Your task to perform on an android device: add a contact in the contacts app Image 0: 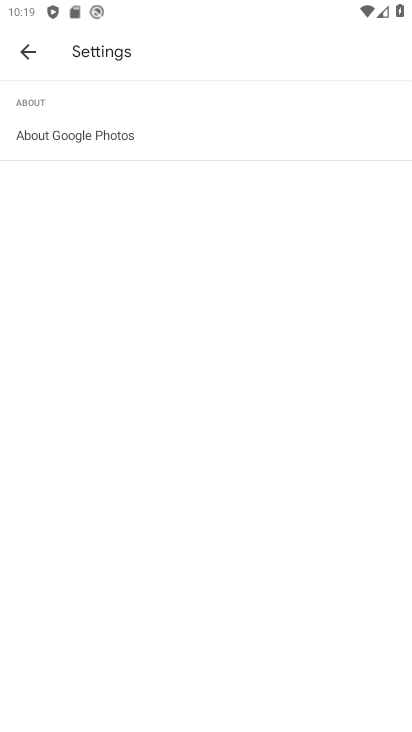
Step 0: press home button
Your task to perform on an android device: add a contact in the contacts app Image 1: 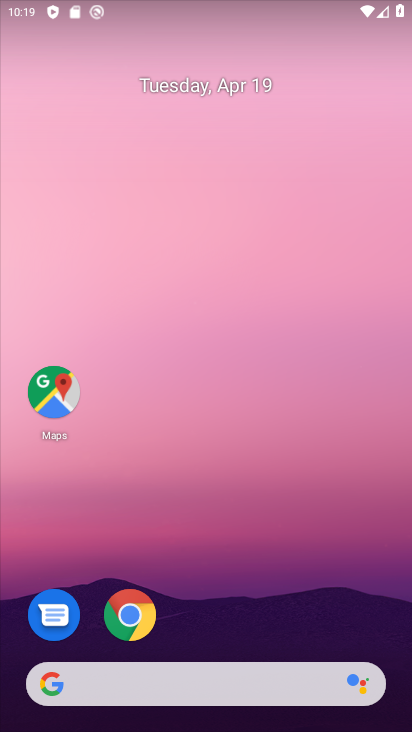
Step 1: drag from (254, 576) to (236, 35)
Your task to perform on an android device: add a contact in the contacts app Image 2: 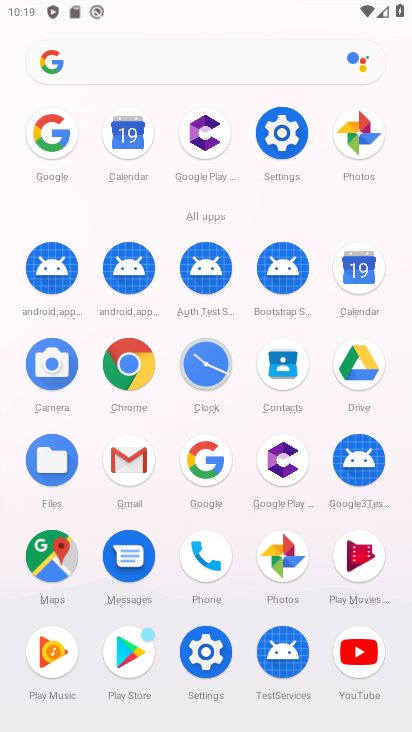
Step 2: click (284, 364)
Your task to perform on an android device: add a contact in the contacts app Image 3: 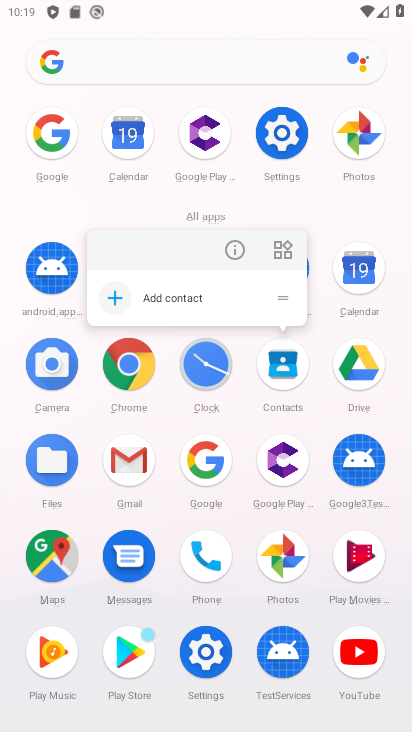
Step 3: click (282, 367)
Your task to perform on an android device: add a contact in the contacts app Image 4: 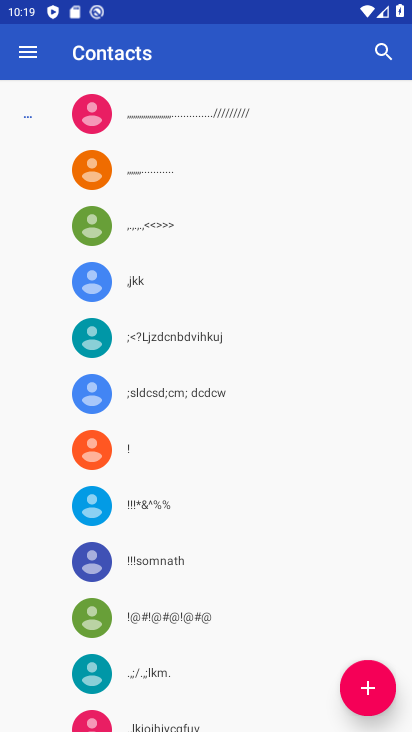
Step 4: click (371, 686)
Your task to perform on an android device: add a contact in the contacts app Image 5: 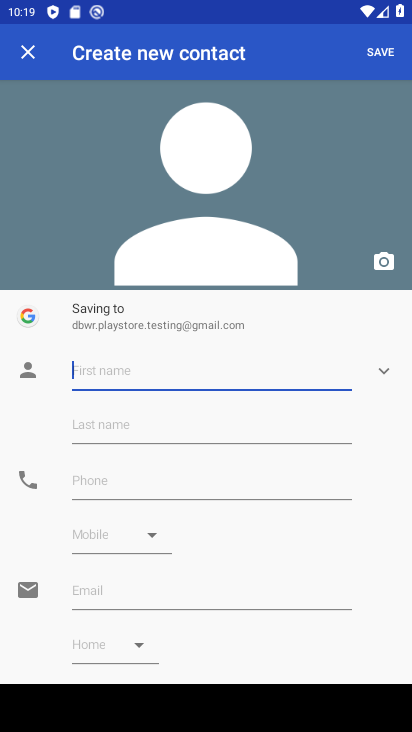
Step 5: click (169, 374)
Your task to perform on an android device: add a contact in the contacts app Image 6: 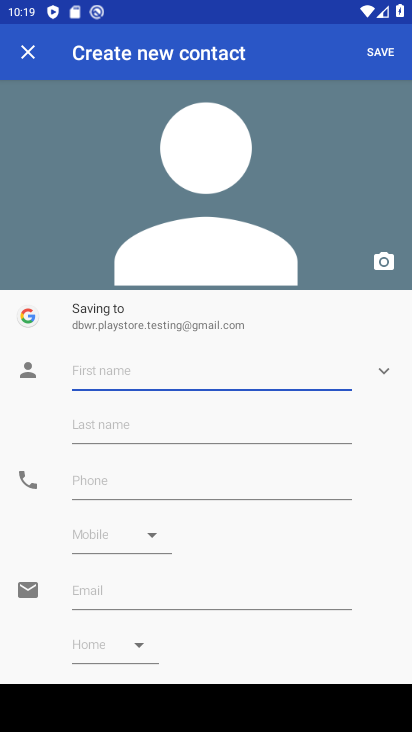
Step 6: type "nbcn"
Your task to perform on an android device: add a contact in the contacts app Image 7: 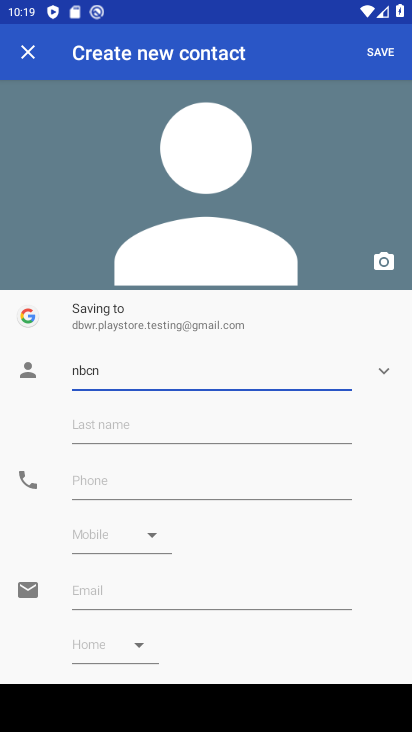
Step 7: click (377, 55)
Your task to perform on an android device: add a contact in the contacts app Image 8: 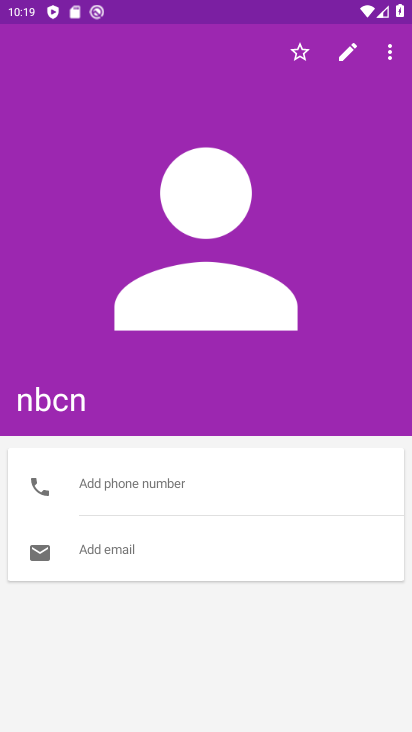
Step 8: task complete